Your task to perform on an android device: Go to display settings Image 0: 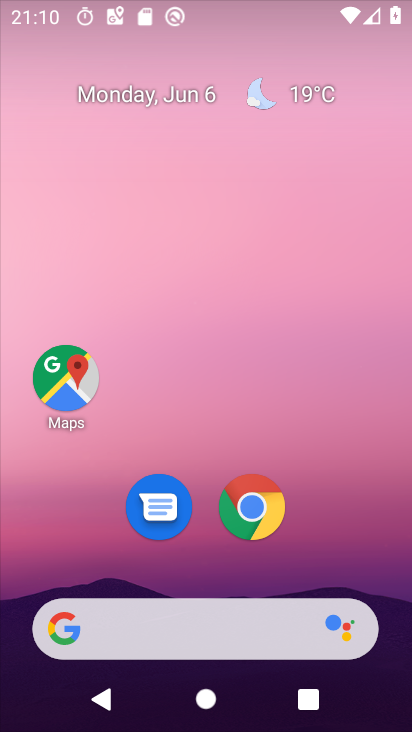
Step 0: press home button
Your task to perform on an android device: Go to display settings Image 1: 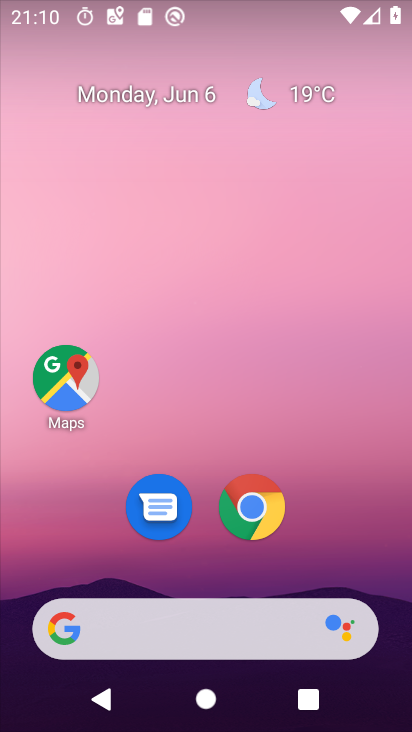
Step 1: drag from (354, 538) to (176, 29)
Your task to perform on an android device: Go to display settings Image 2: 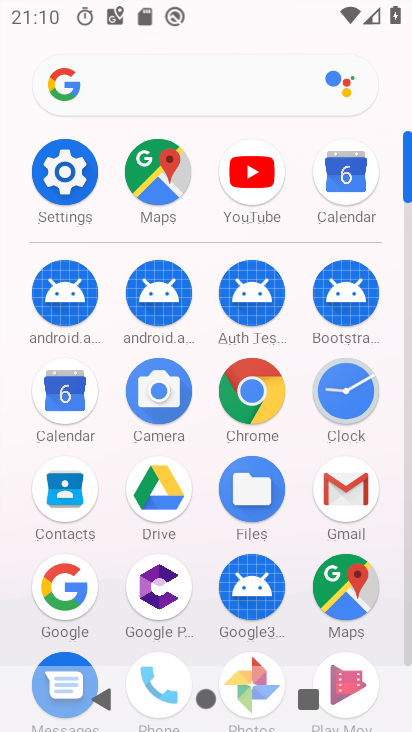
Step 2: click (66, 190)
Your task to perform on an android device: Go to display settings Image 3: 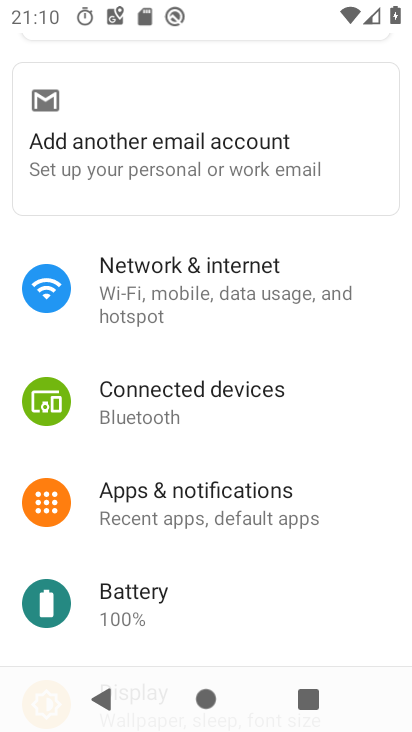
Step 3: drag from (163, 620) to (115, 214)
Your task to perform on an android device: Go to display settings Image 4: 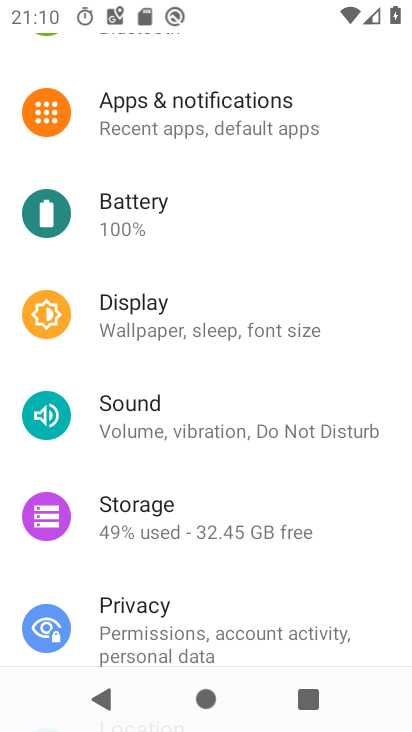
Step 4: click (153, 340)
Your task to perform on an android device: Go to display settings Image 5: 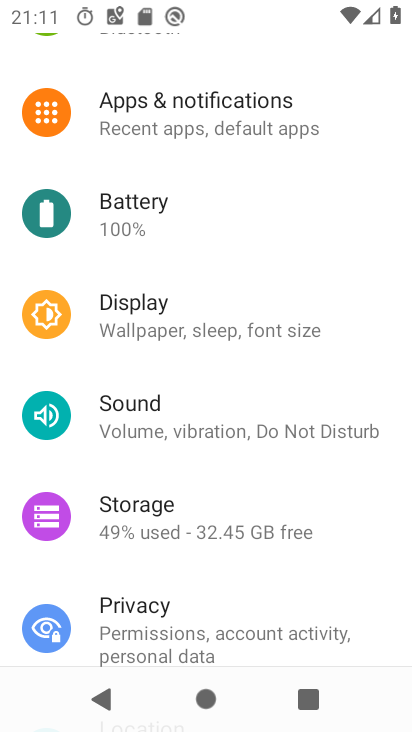
Step 5: click (33, 321)
Your task to perform on an android device: Go to display settings Image 6: 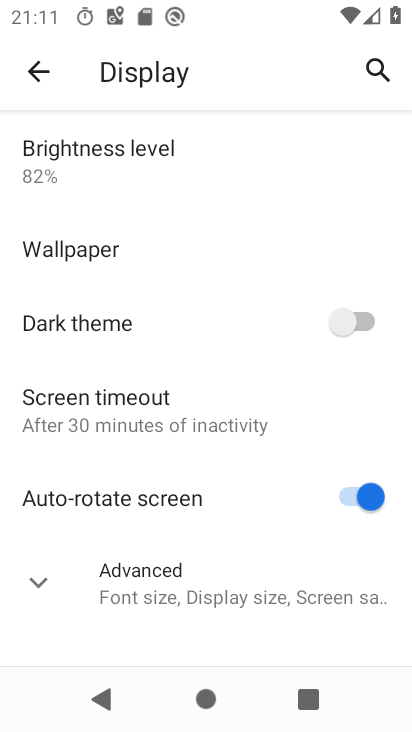
Step 6: task complete